Your task to perform on an android device: When is my next appointment? Image 0: 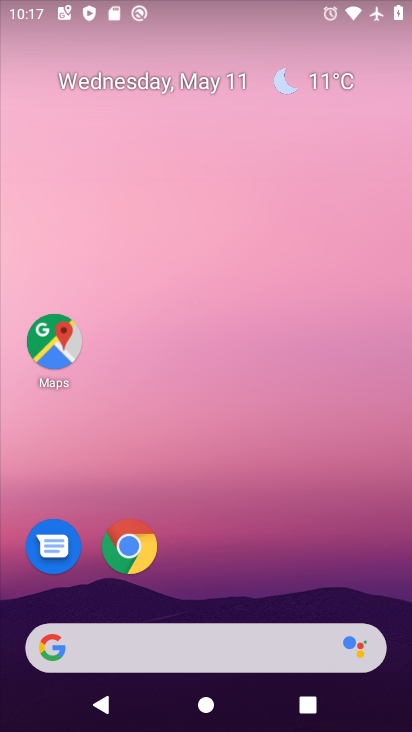
Step 0: drag from (395, 632) to (320, 147)
Your task to perform on an android device: When is my next appointment? Image 1: 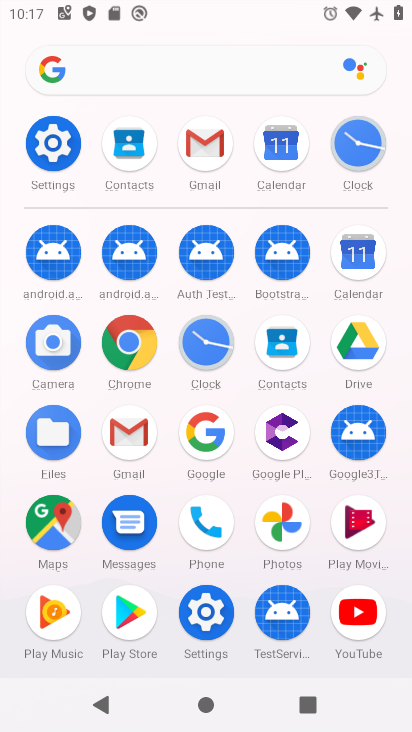
Step 1: click (356, 251)
Your task to perform on an android device: When is my next appointment? Image 2: 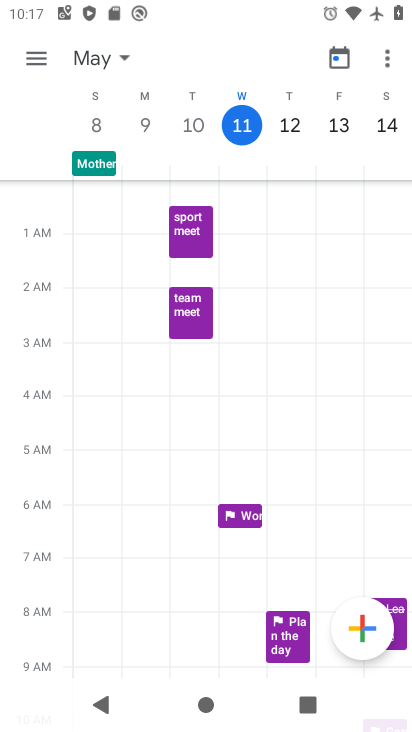
Step 2: click (40, 55)
Your task to perform on an android device: When is my next appointment? Image 3: 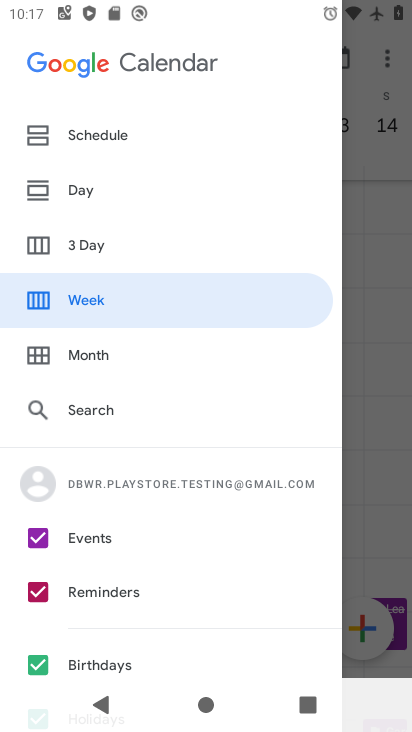
Step 3: click (95, 137)
Your task to perform on an android device: When is my next appointment? Image 4: 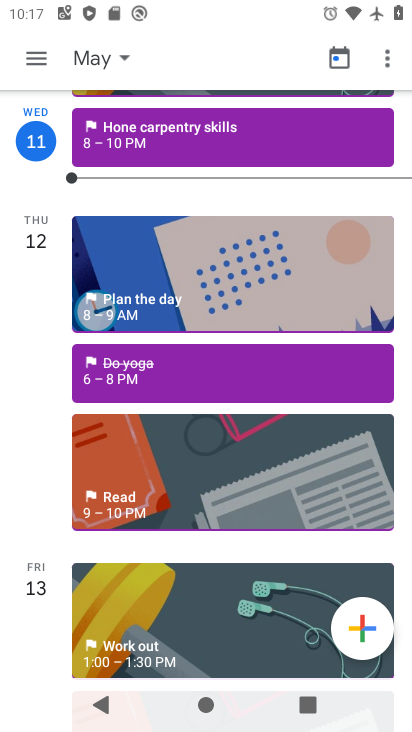
Step 4: task complete